Your task to perform on an android device: Open location settings Image 0: 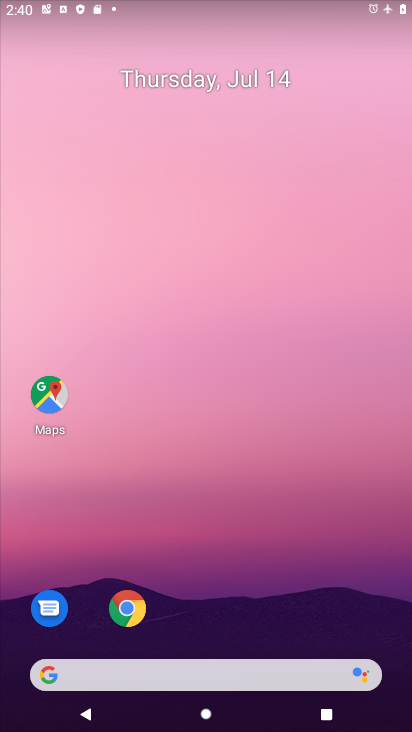
Step 0: drag from (389, 646) to (345, 127)
Your task to perform on an android device: Open location settings Image 1: 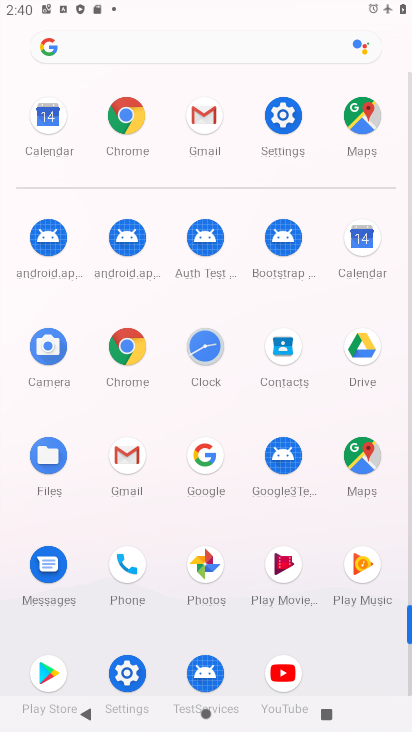
Step 1: click (126, 674)
Your task to perform on an android device: Open location settings Image 2: 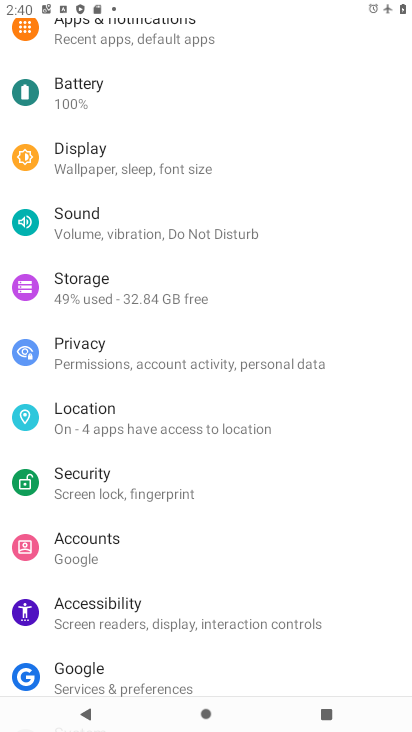
Step 2: click (89, 413)
Your task to perform on an android device: Open location settings Image 3: 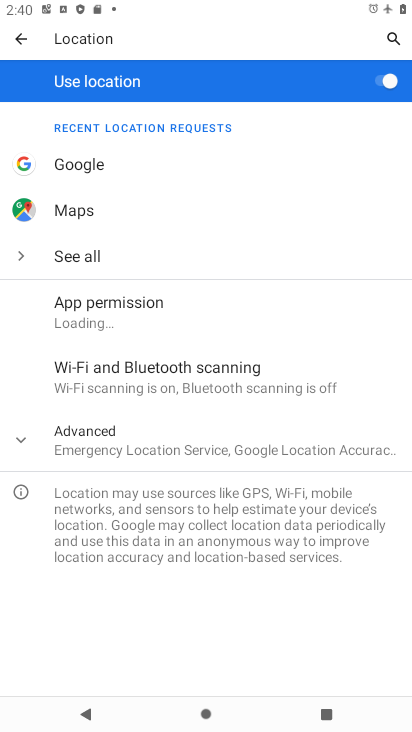
Step 3: click (16, 446)
Your task to perform on an android device: Open location settings Image 4: 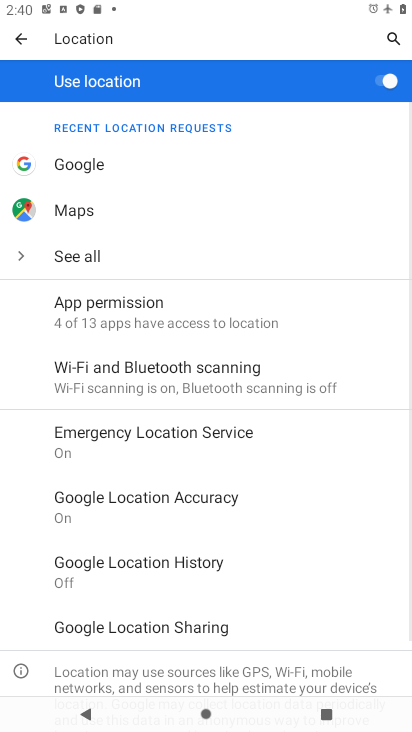
Step 4: task complete